Your task to perform on an android device: allow cookies in the chrome app Image 0: 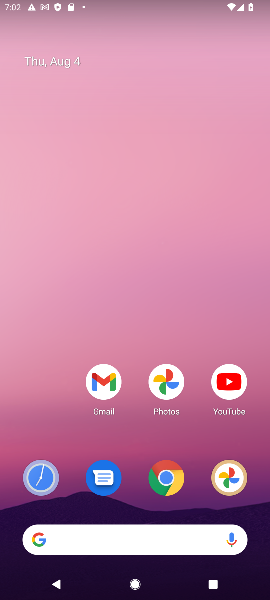
Step 0: click (238, 125)
Your task to perform on an android device: allow cookies in the chrome app Image 1: 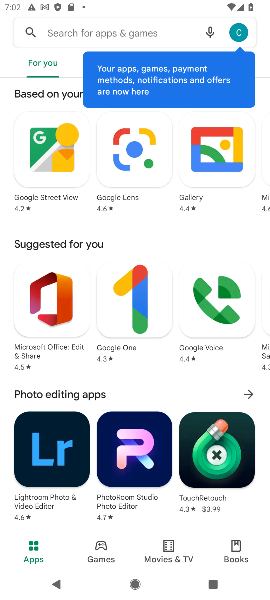
Step 1: drag from (125, 520) to (133, 235)
Your task to perform on an android device: allow cookies in the chrome app Image 2: 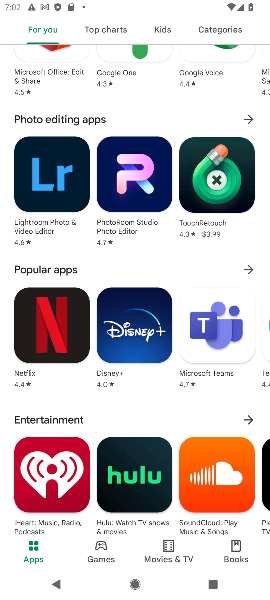
Step 2: drag from (152, 368) to (156, 144)
Your task to perform on an android device: allow cookies in the chrome app Image 3: 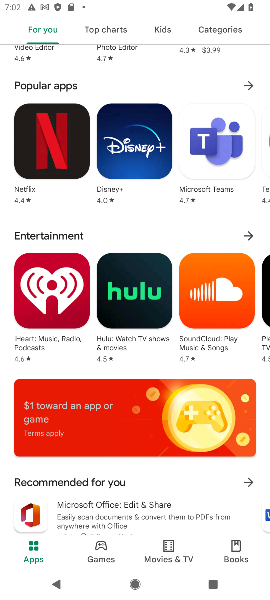
Step 3: press home button
Your task to perform on an android device: allow cookies in the chrome app Image 4: 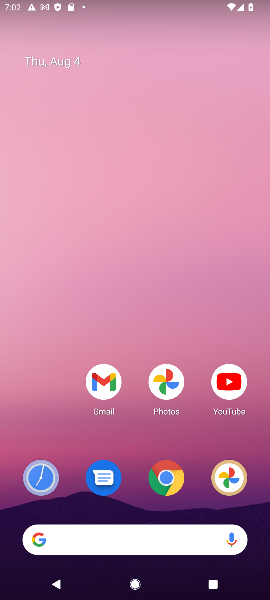
Step 4: click (166, 473)
Your task to perform on an android device: allow cookies in the chrome app Image 5: 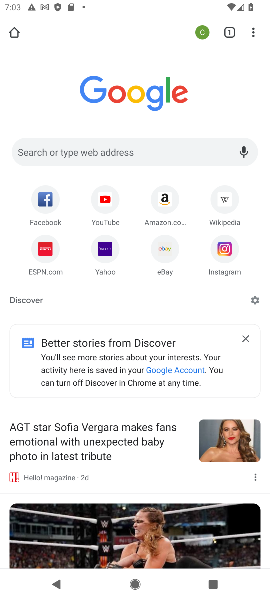
Step 5: drag from (252, 27) to (166, 280)
Your task to perform on an android device: allow cookies in the chrome app Image 6: 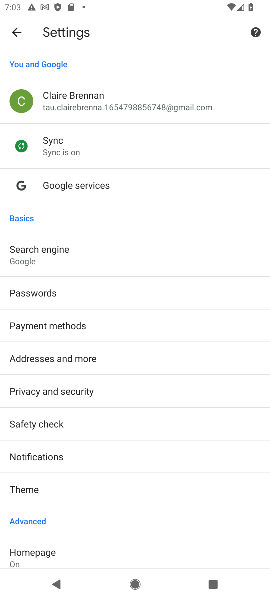
Step 6: drag from (110, 481) to (148, 229)
Your task to perform on an android device: allow cookies in the chrome app Image 7: 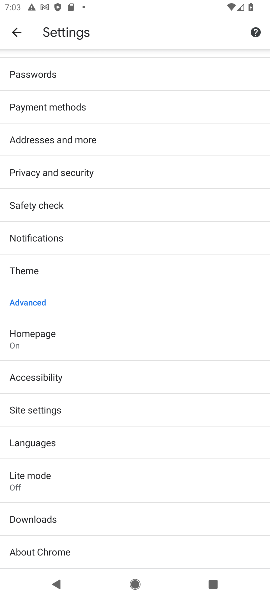
Step 7: click (48, 413)
Your task to perform on an android device: allow cookies in the chrome app Image 8: 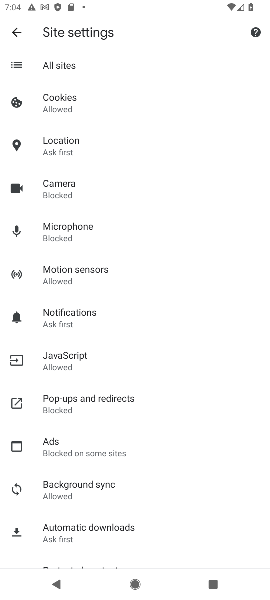
Step 8: drag from (100, 516) to (169, 246)
Your task to perform on an android device: allow cookies in the chrome app Image 9: 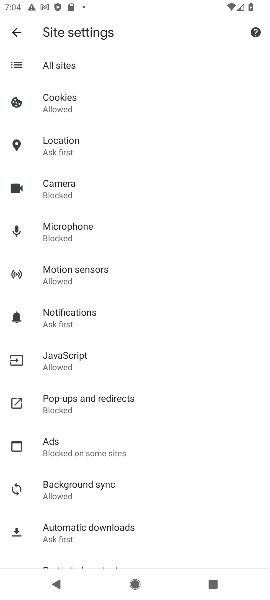
Step 9: click (72, 115)
Your task to perform on an android device: allow cookies in the chrome app Image 10: 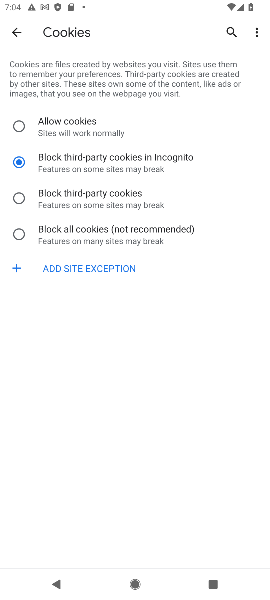
Step 10: drag from (120, 415) to (157, 214)
Your task to perform on an android device: allow cookies in the chrome app Image 11: 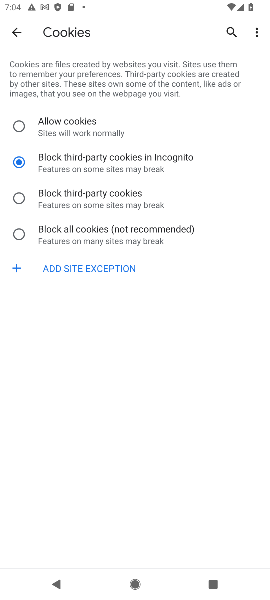
Step 11: click (84, 130)
Your task to perform on an android device: allow cookies in the chrome app Image 12: 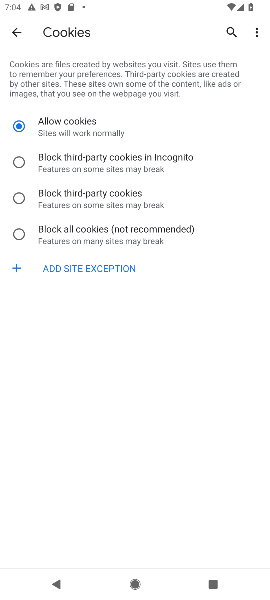
Step 12: task complete